Your task to perform on an android device: install app "Upside-Cash back on gas & food" Image 0: 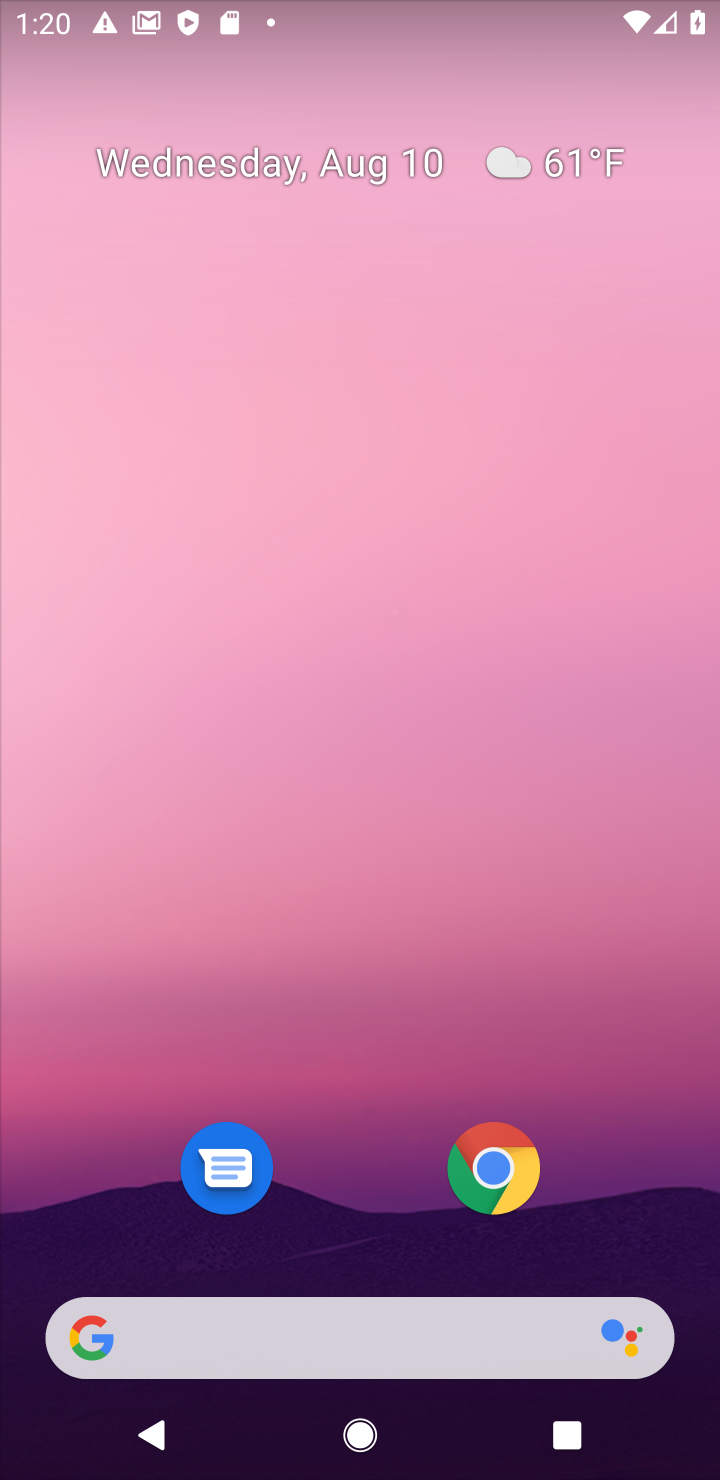
Step 0: drag from (345, 1289) to (273, 343)
Your task to perform on an android device: install app "Upside-Cash back on gas & food" Image 1: 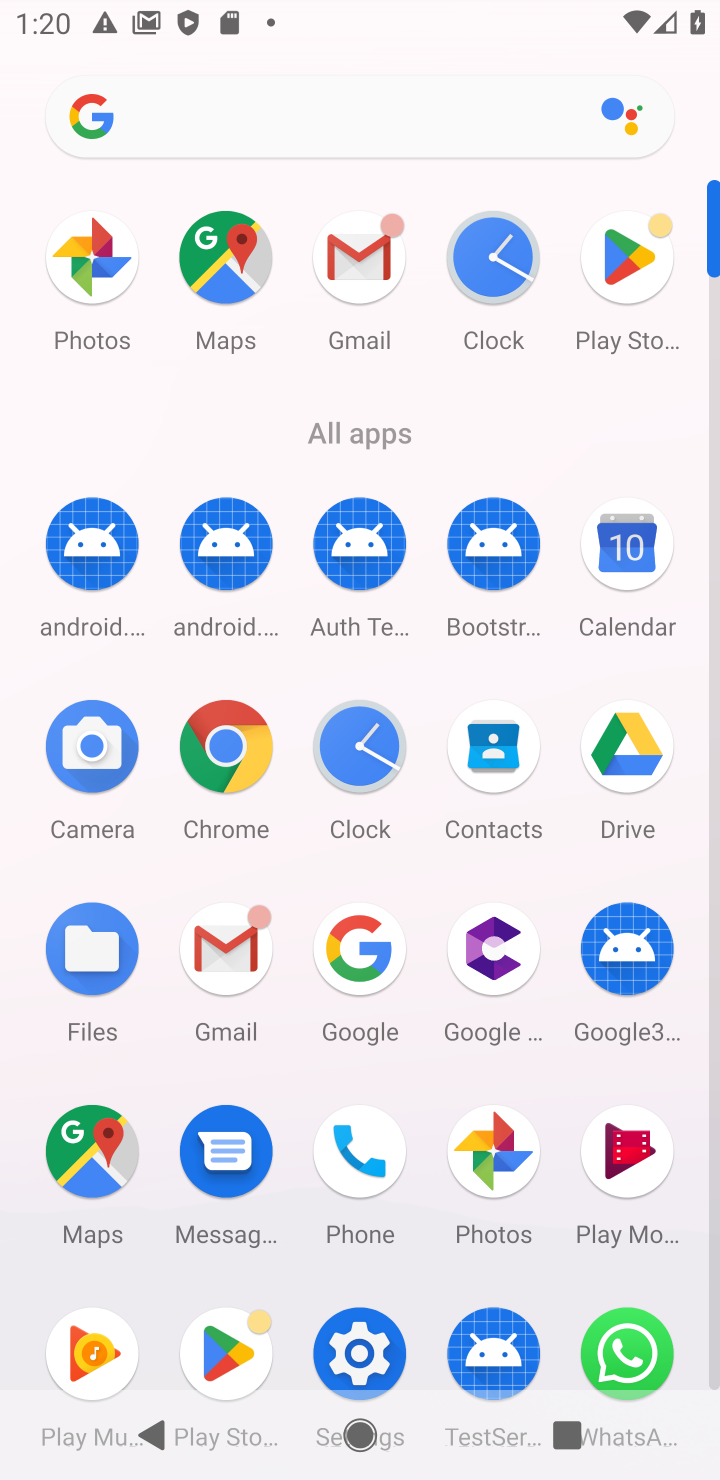
Step 1: click (633, 262)
Your task to perform on an android device: install app "Upside-Cash back on gas & food" Image 2: 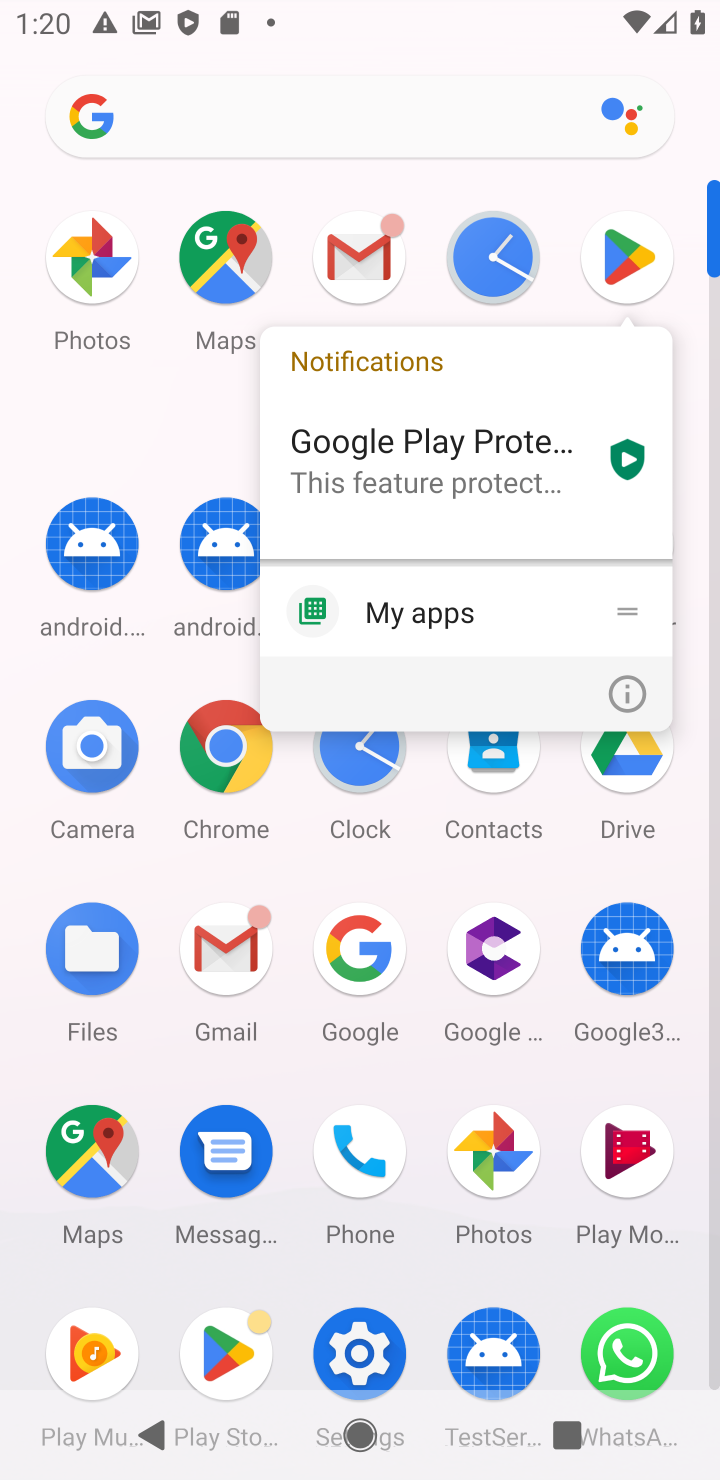
Step 2: click (633, 262)
Your task to perform on an android device: install app "Upside-Cash back on gas & food" Image 3: 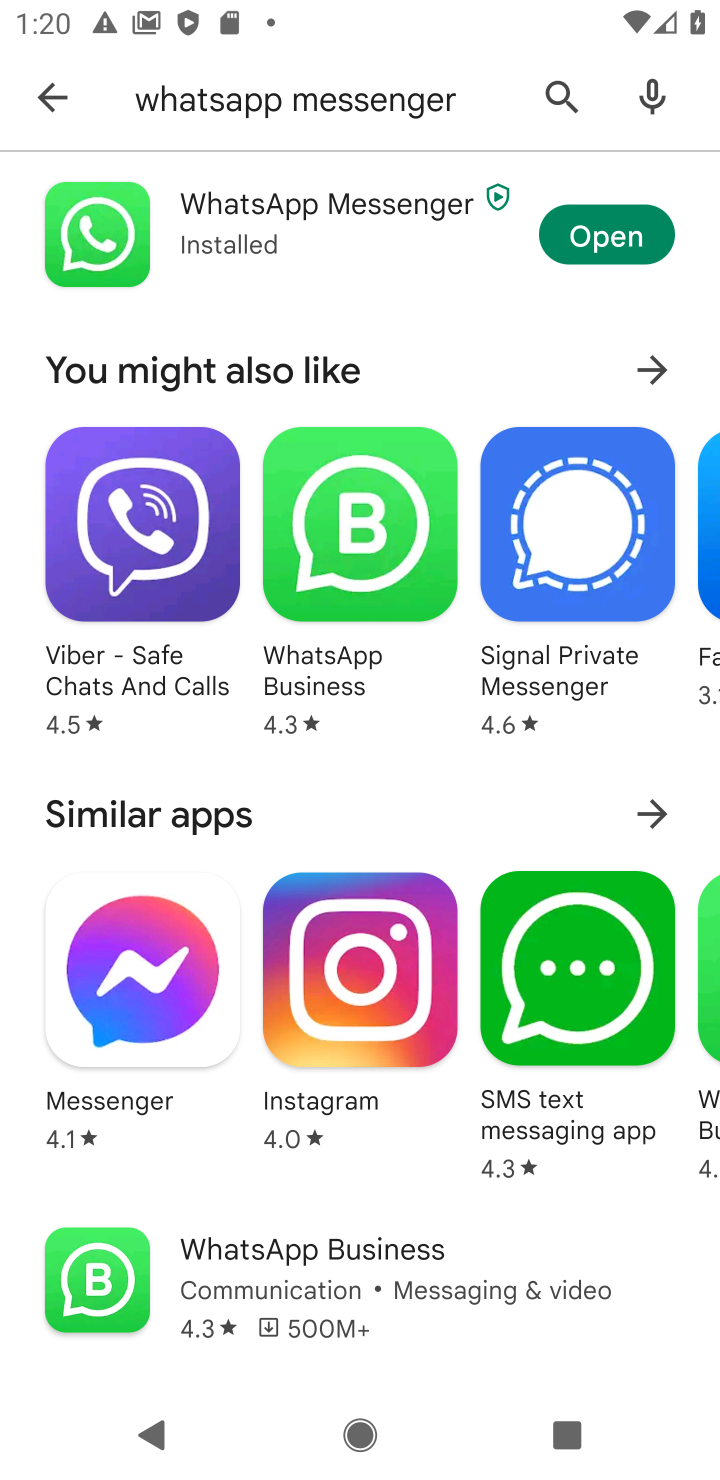
Step 3: press back button
Your task to perform on an android device: install app "Upside-Cash back on gas & food" Image 4: 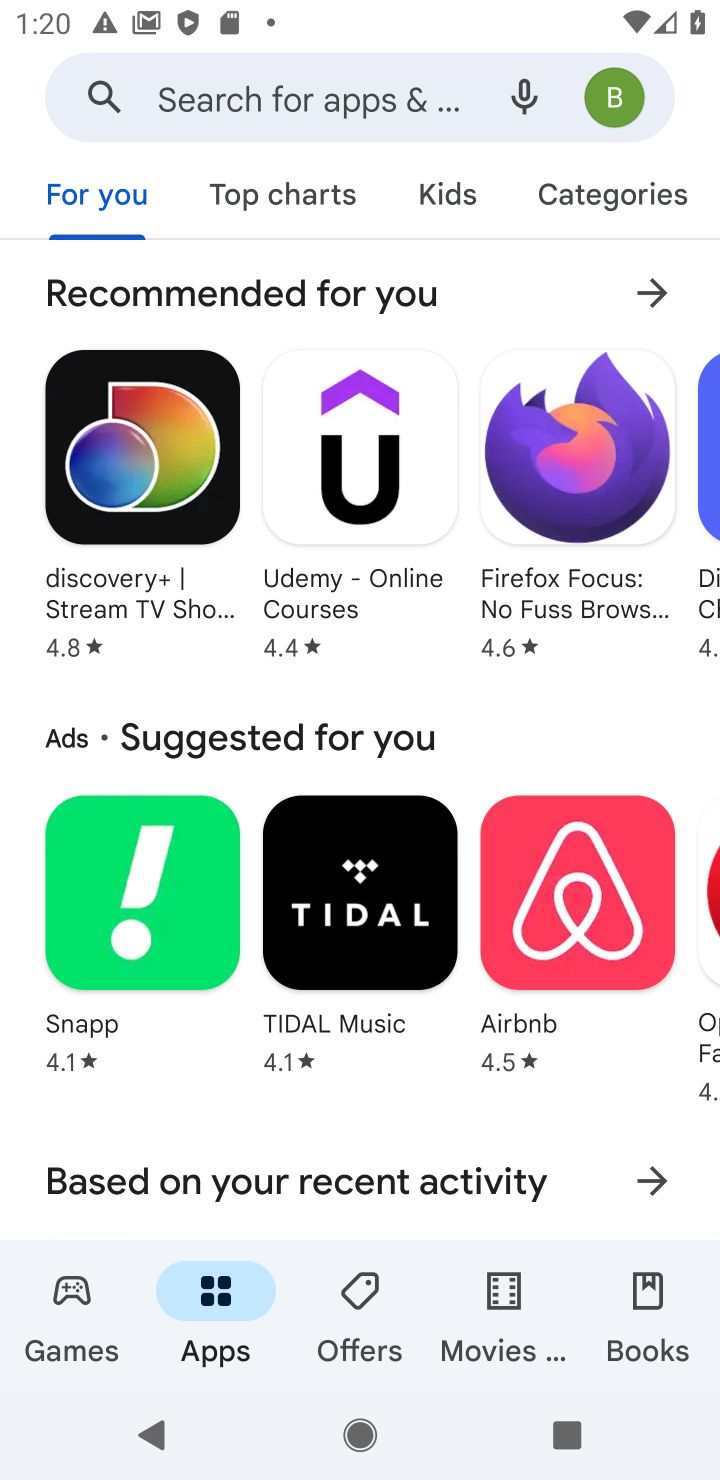
Step 4: click (345, 112)
Your task to perform on an android device: install app "Upside-Cash back on gas & food" Image 5: 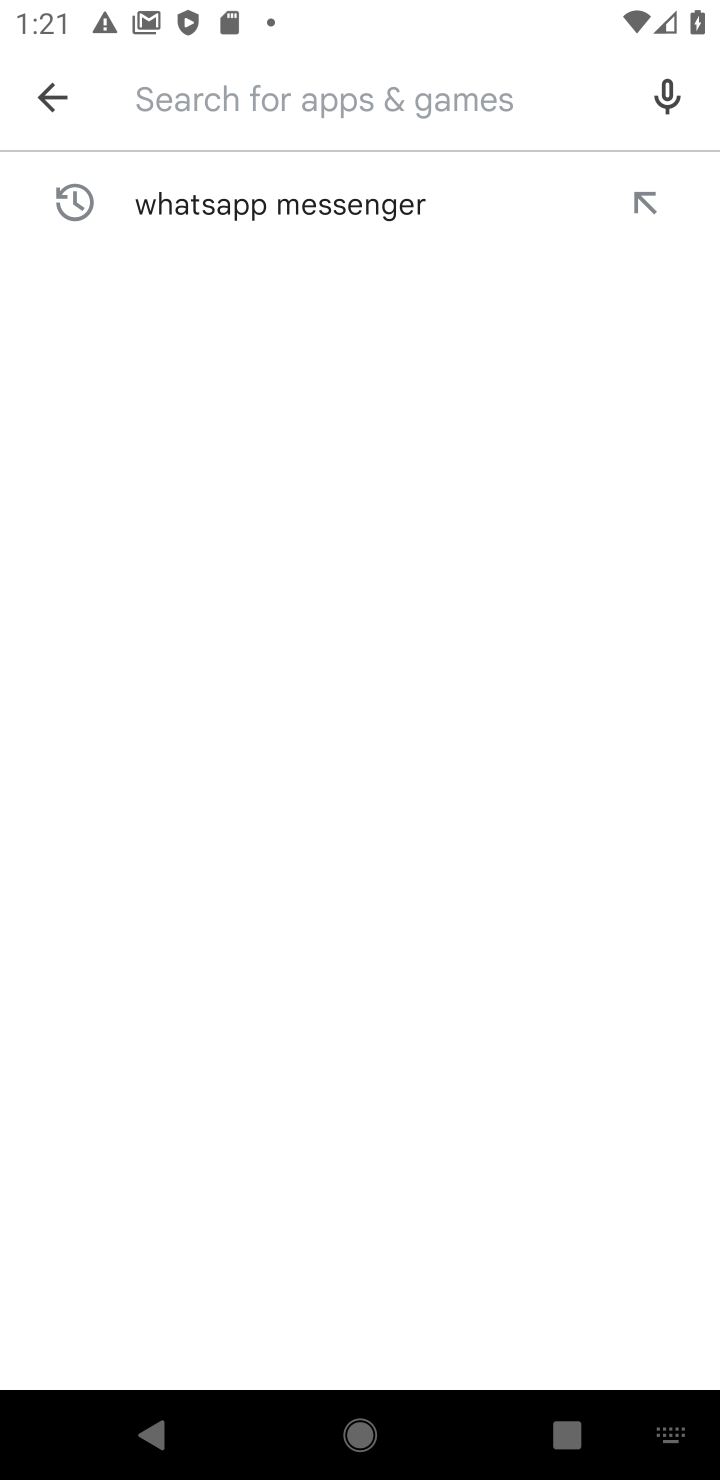
Step 5: type "Upside-Cash back on gas & food"
Your task to perform on an android device: install app "Upside-Cash back on gas & food" Image 6: 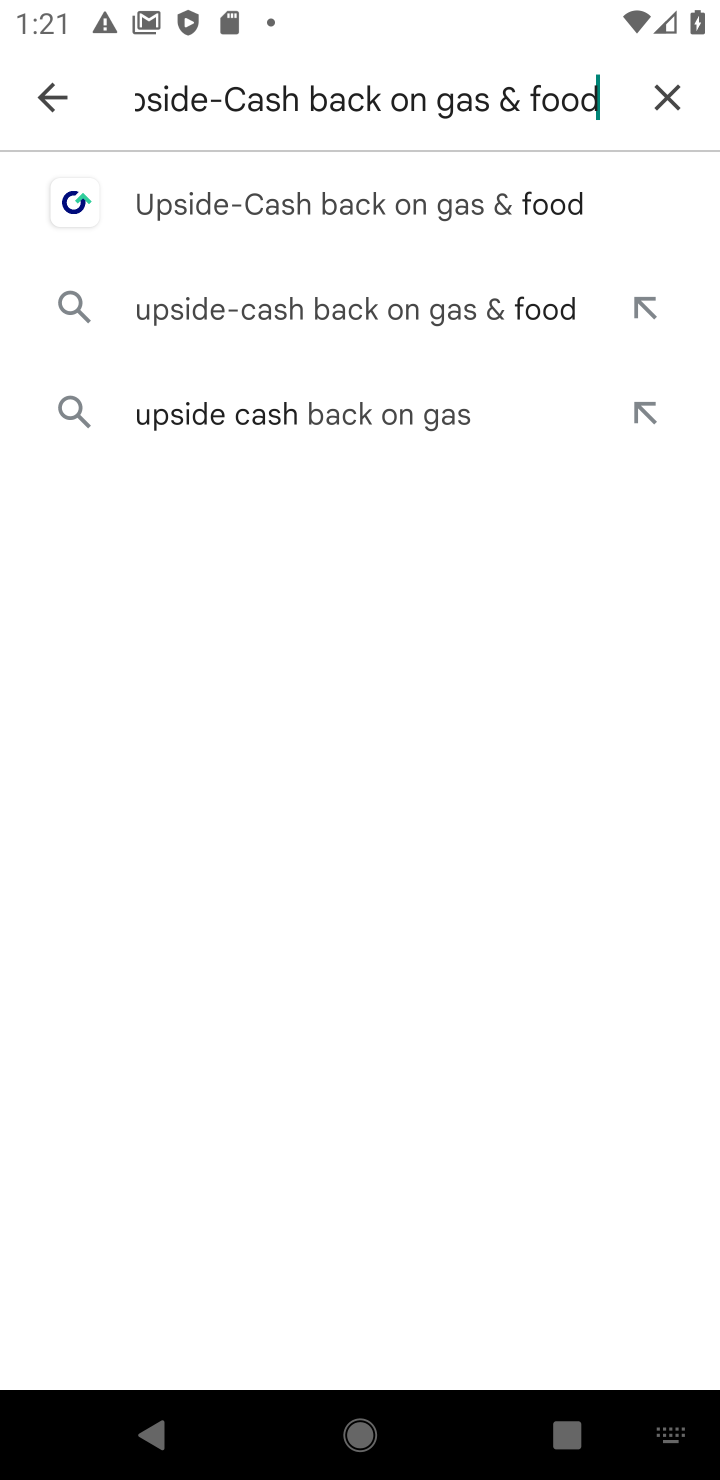
Step 6: type ""
Your task to perform on an android device: install app "Upside-Cash back on gas & food" Image 7: 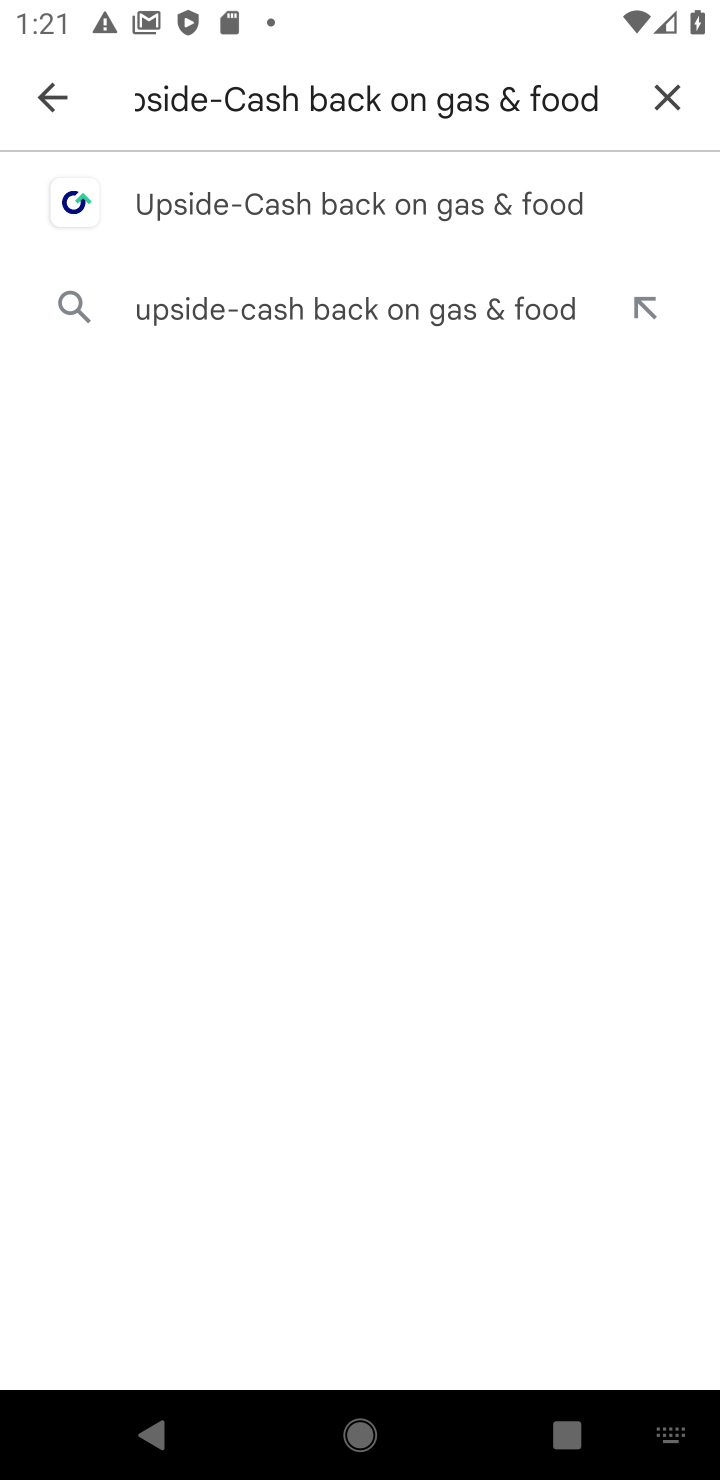
Step 7: click (400, 215)
Your task to perform on an android device: install app "Upside-Cash back on gas & food" Image 8: 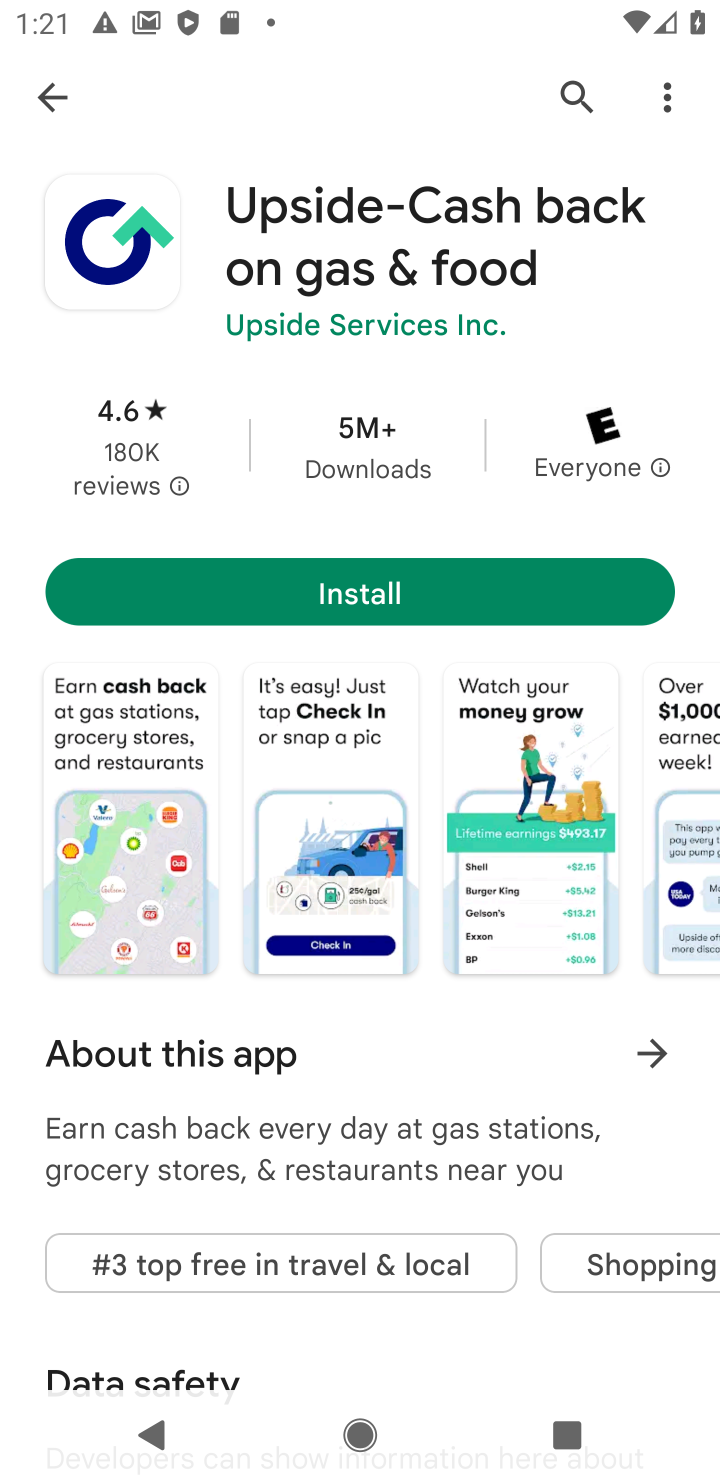
Step 8: click (430, 600)
Your task to perform on an android device: install app "Upside-Cash back on gas & food" Image 9: 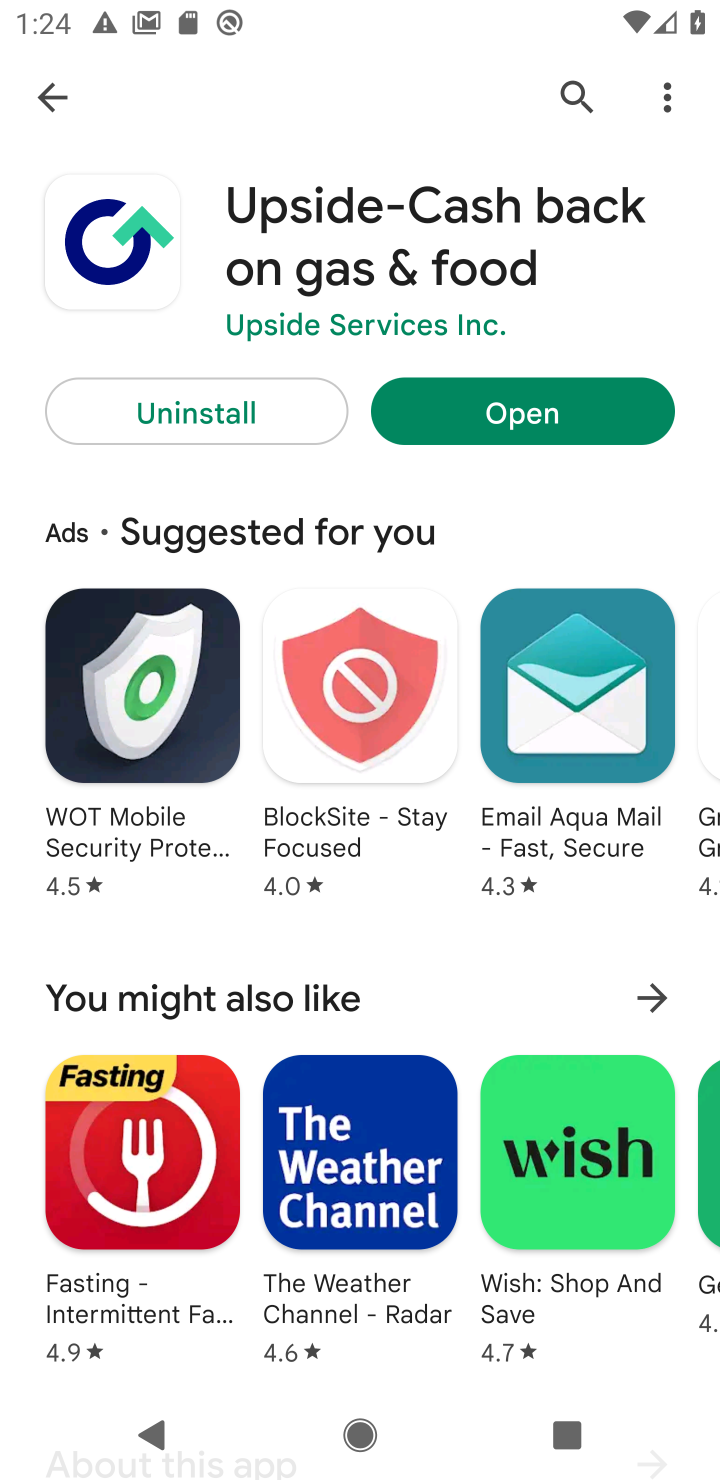
Step 9: task complete